Your task to perform on an android device: open app "Viber Messenger" (install if not already installed) and enter user name: "blameless@icloud.com" and password: "Yoknapatawpha" Image 0: 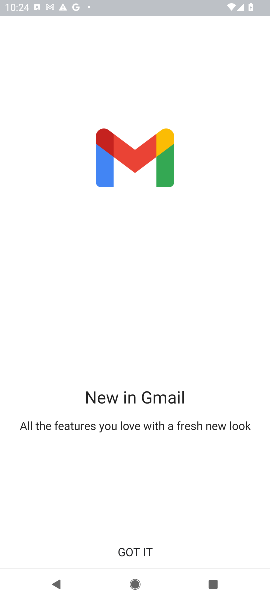
Step 0: press home button
Your task to perform on an android device: open app "Viber Messenger" (install if not already installed) and enter user name: "blameless@icloud.com" and password: "Yoknapatawpha" Image 1: 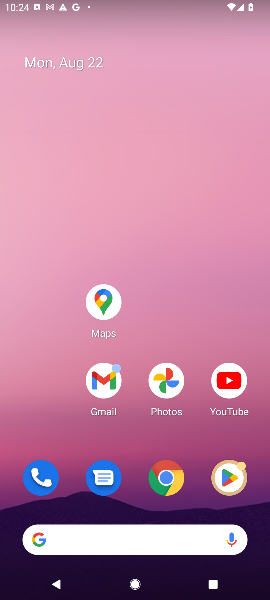
Step 1: click (231, 482)
Your task to perform on an android device: open app "Viber Messenger" (install if not already installed) and enter user name: "blameless@icloud.com" and password: "Yoknapatawpha" Image 2: 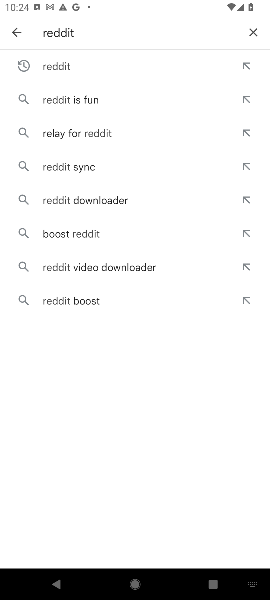
Step 2: click (254, 36)
Your task to perform on an android device: open app "Viber Messenger" (install if not already installed) and enter user name: "blameless@icloud.com" and password: "Yoknapatawpha" Image 3: 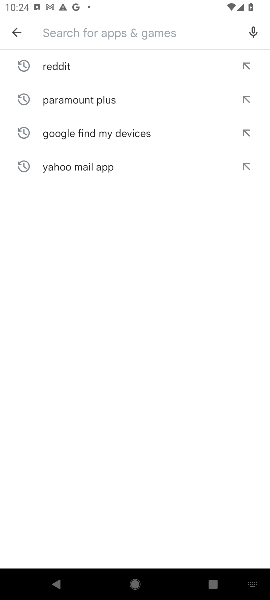
Step 3: type "messanger"
Your task to perform on an android device: open app "Viber Messenger" (install if not already installed) and enter user name: "blameless@icloud.com" and password: "Yoknapatawpha" Image 4: 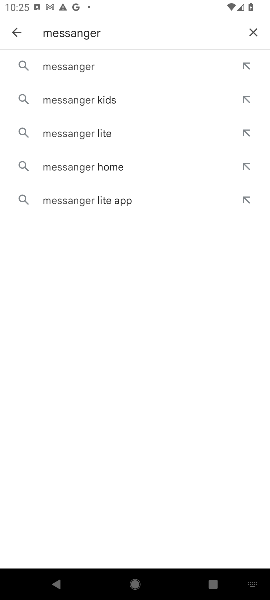
Step 4: click (102, 55)
Your task to perform on an android device: open app "Viber Messenger" (install if not already installed) and enter user name: "blameless@icloud.com" and password: "Yoknapatawpha" Image 5: 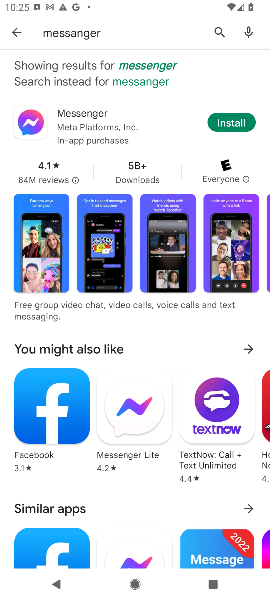
Step 5: click (236, 111)
Your task to perform on an android device: open app "Viber Messenger" (install if not already installed) and enter user name: "blameless@icloud.com" and password: "Yoknapatawpha" Image 6: 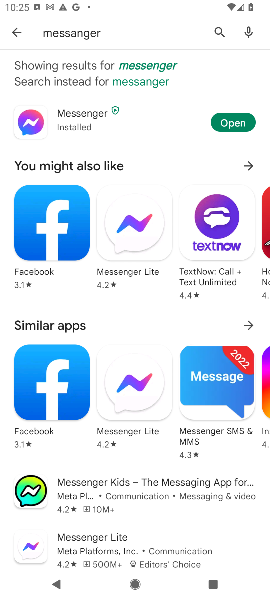
Step 6: click (224, 118)
Your task to perform on an android device: open app "Viber Messenger" (install if not already installed) and enter user name: "blameless@icloud.com" and password: "Yoknapatawpha" Image 7: 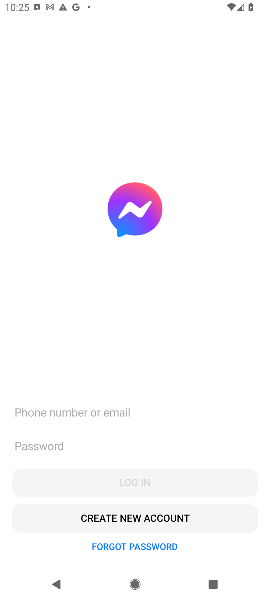
Step 7: click (54, 408)
Your task to perform on an android device: open app "Viber Messenger" (install if not already installed) and enter user name: "blameless@icloud.com" and password: "Yoknapatawpha" Image 8: 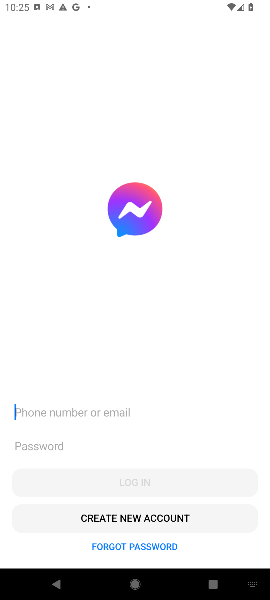
Step 8: type "blameless@icloud.com"
Your task to perform on an android device: open app "Viber Messenger" (install if not already installed) and enter user name: "blameless@icloud.com" and password: "Yoknapatawpha" Image 9: 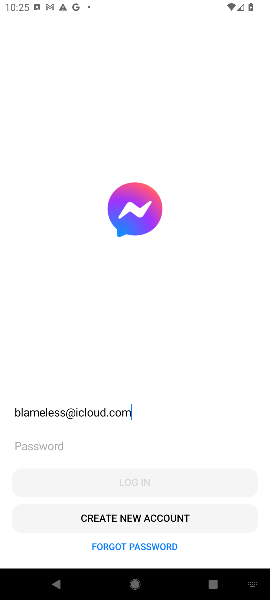
Step 9: click (82, 446)
Your task to perform on an android device: open app "Viber Messenger" (install if not already installed) and enter user name: "blameless@icloud.com" and password: "Yoknapatawpha" Image 10: 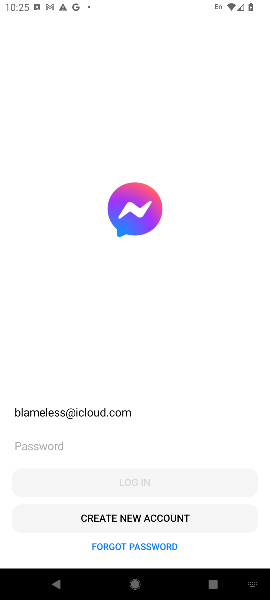
Step 10: type "Yoknapatawpha"
Your task to perform on an android device: open app "Viber Messenger" (install if not already installed) and enter user name: "blameless@icloud.com" and password: "Yoknapatawpha" Image 11: 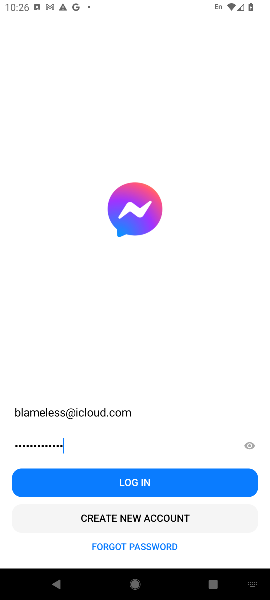
Step 11: click (59, 480)
Your task to perform on an android device: open app "Viber Messenger" (install if not already installed) and enter user name: "blameless@icloud.com" and password: "Yoknapatawpha" Image 12: 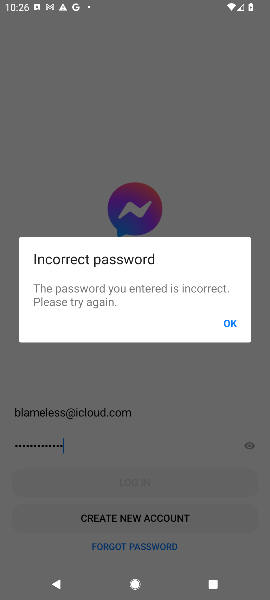
Step 12: task complete